Your task to perform on an android device: Set the phone to "Do not disturb". Image 0: 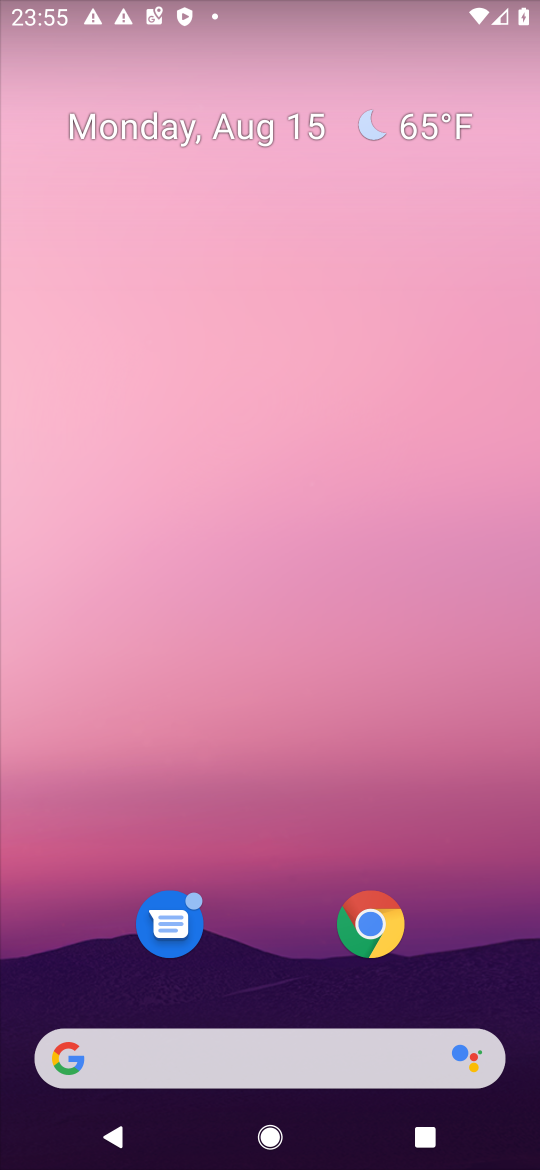
Step 0: drag from (366, 20) to (289, 797)
Your task to perform on an android device: Set the phone to "Do not disturb". Image 1: 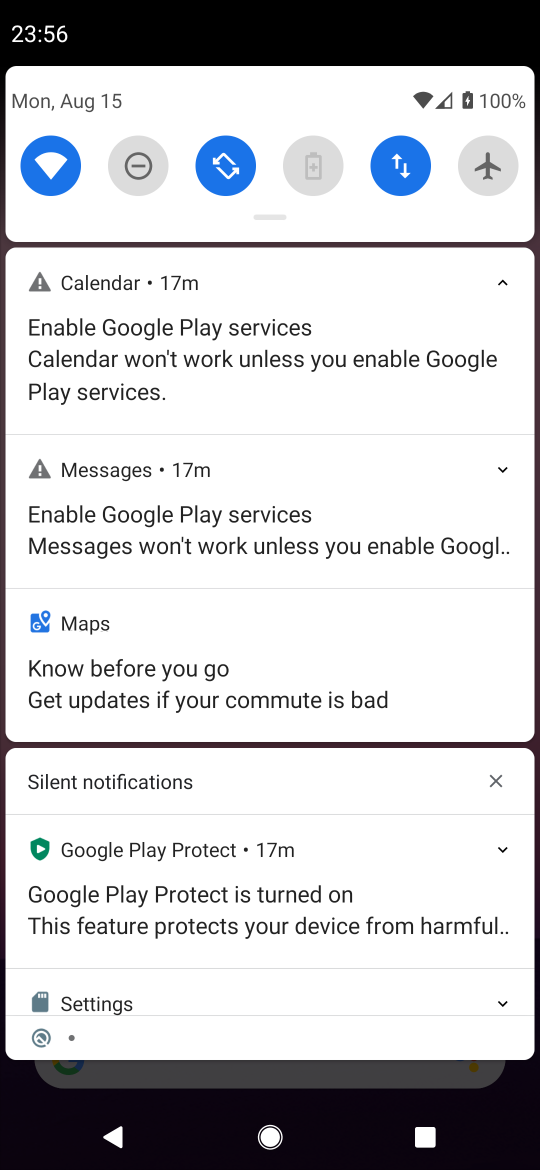
Step 1: click (145, 170)
Your task to perform on an android device: Set the phone to "Do not disturb". Image 2: 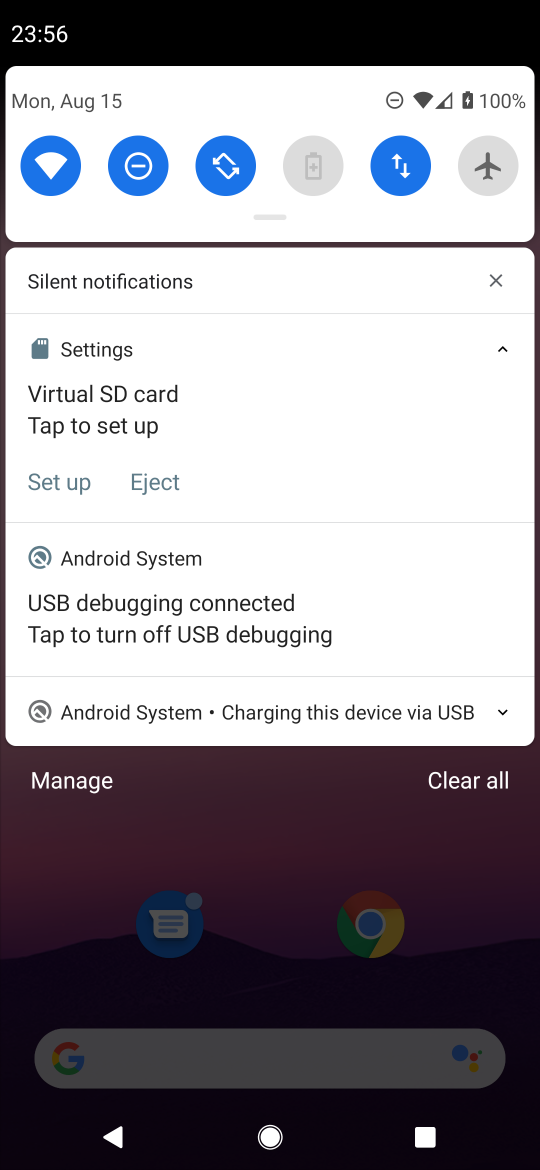
Step 2: task complete